Your task to perform on an android device: Open ESPN.com Image 0: 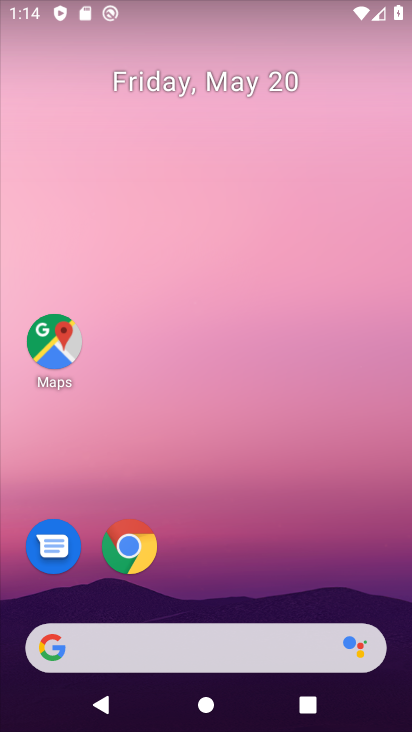
Step 0: click (111, 547)
Your task to perform on an android device: Open ESPN.com Image 1: 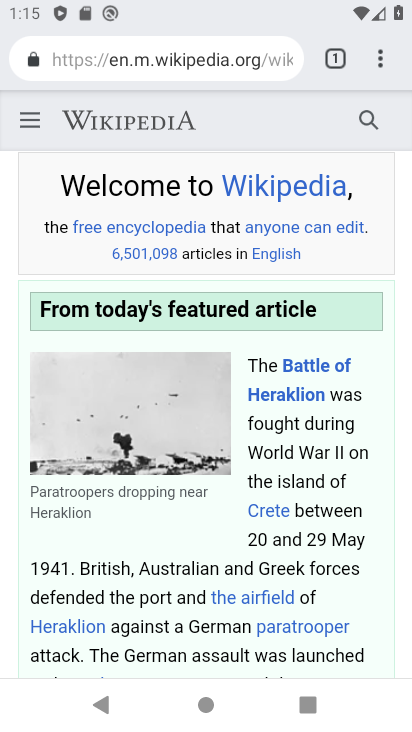
Step 1: click (332, 56)
Your task to perform on an android device: Open ESPN.com Image 2: 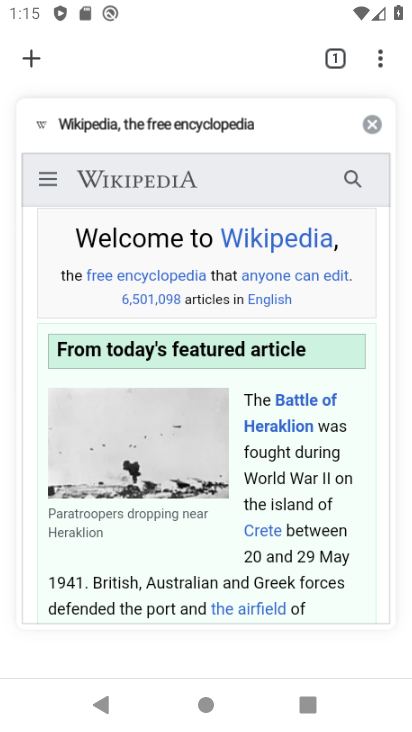
Step 2: click (370, 132)
Your task to perform on an android device: Open ESPN.com Image 3: 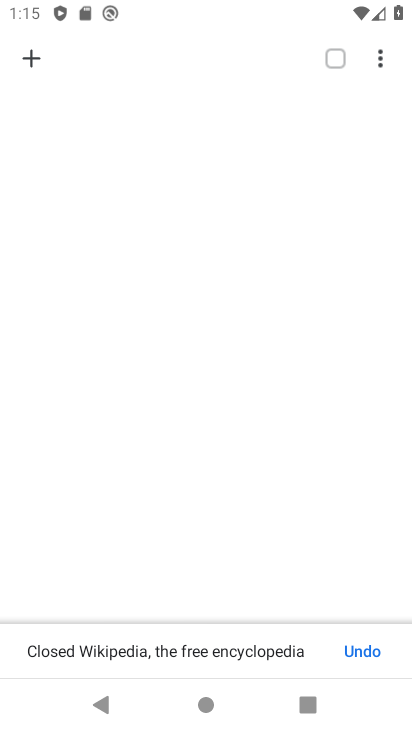
Step 3: click (44, 63)
Your task to perform on an android device: Open ESPN.com Image 4: 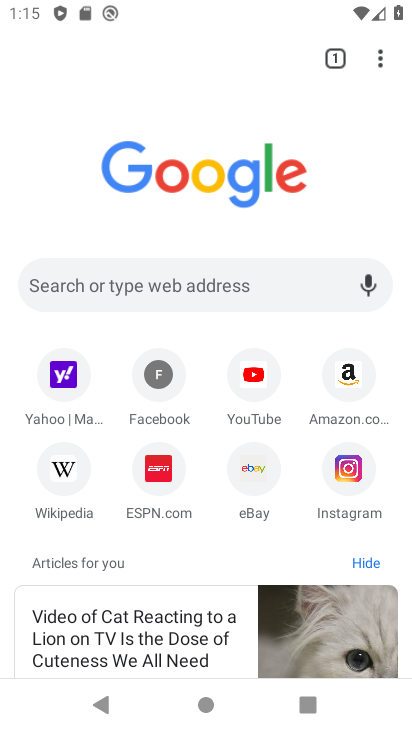
Step 4: click (148, 473)
Your task to perform on an android device: Open ESPN.com Image 5: 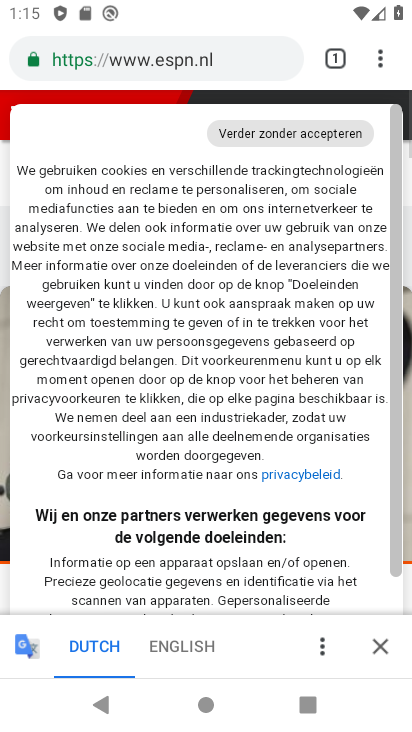
Step 5: task complete